Your task to perform on an android device: Go to accessibility settings Image 0: 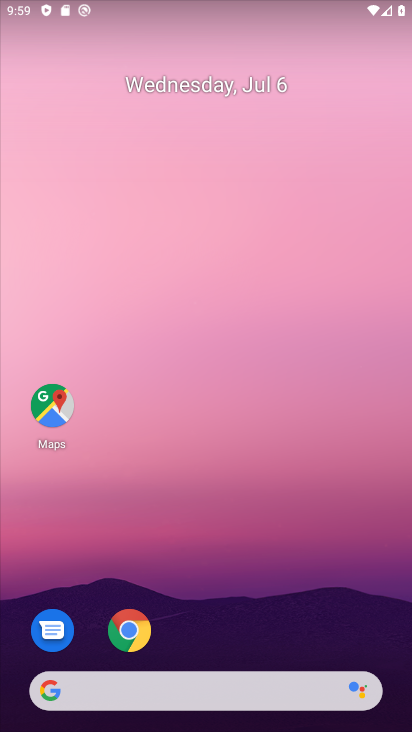
Step 0: drag from (315, 601) to (305, 280)
Your task to perform on an android device: Go to accessibility settings Image 1: 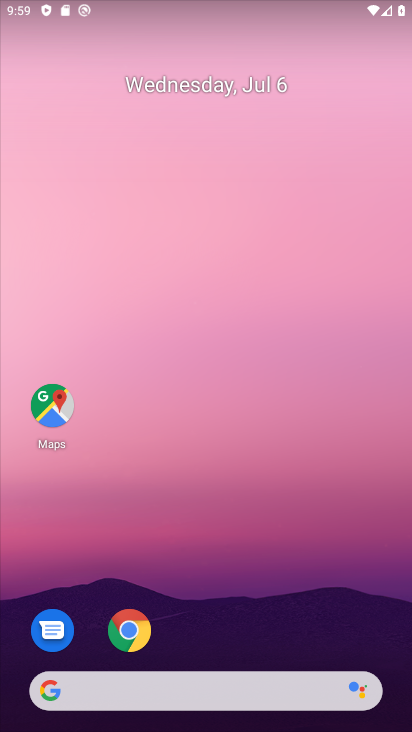
Step 1: drag from (287, 695) to (312, 155)
Your task to perform on an android device: Go to accessibility settings Image 2: 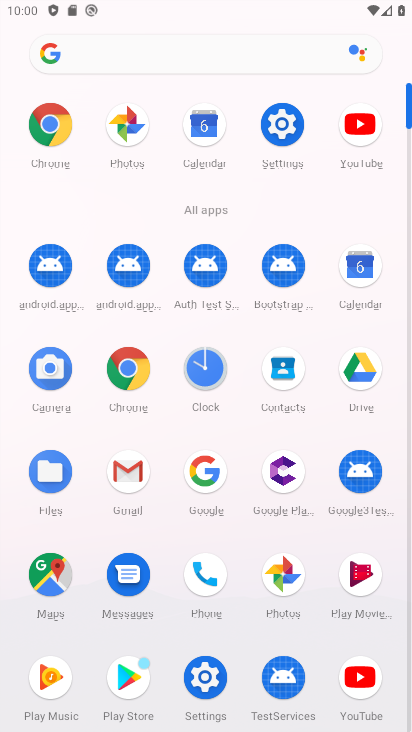
Step 2: click (293, 140)
Your task to perform on an android device: Go to accessibility settings Image 3: 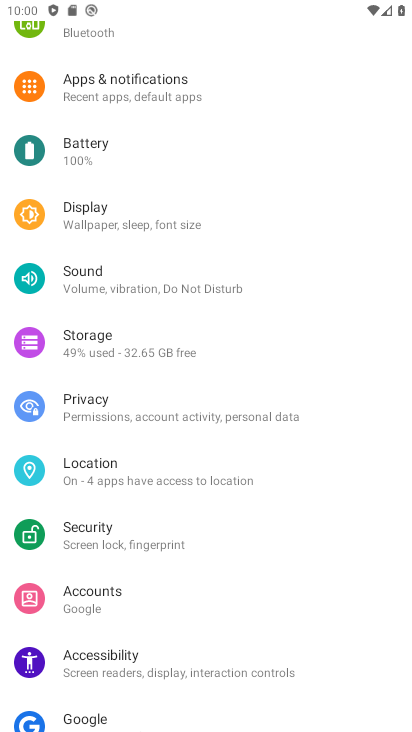
Step 3: drag from (235, 634) to (249, 267)
Your task to perform on an android device: Go to accessibility settings Image 4: 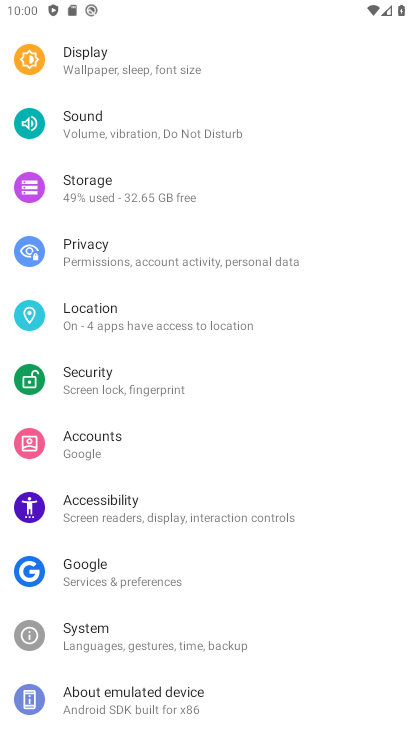
Step 4: click (131, 510)
Your task to perform on an android device: Go to accessibility settings Image 5: 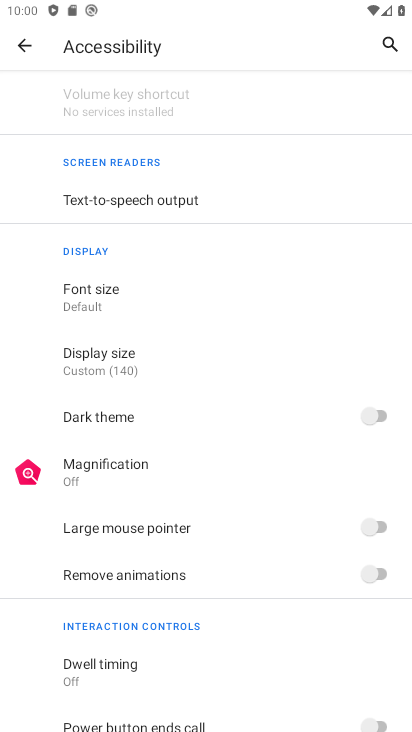
Step 5: task complete